Your task to perform on an android device: delete location history Image 0: 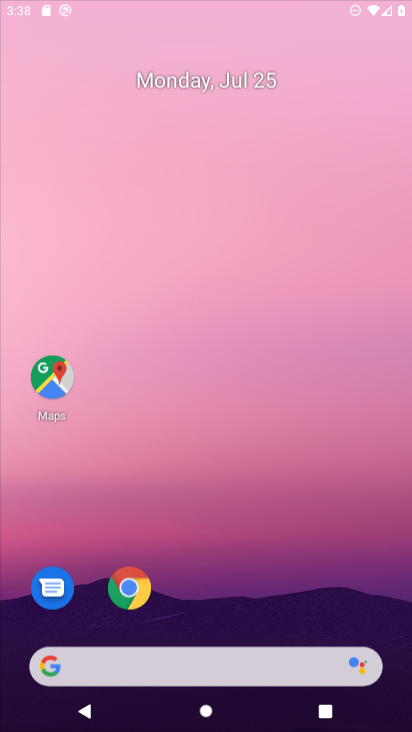
Step 0: drag from (377, 100) to (232, 120)
Your task to perform on an android device: delete location history Image 1: 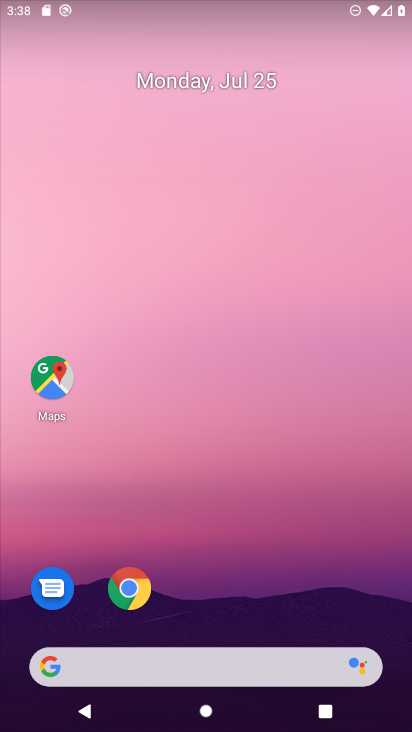
Step 1: drag from (233, 592) to (169, 42)
Your task to perform on an android device: delete location history Image 2: 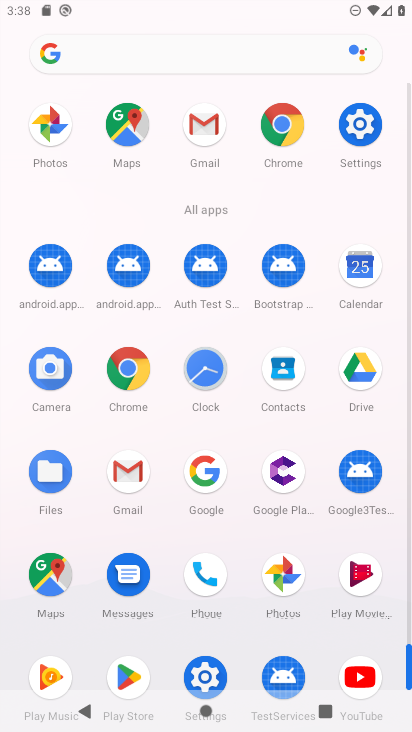
Step 2: drag from (226, 477) to (205, 221)
Your task to perform on an android device: delete location history Image 3: 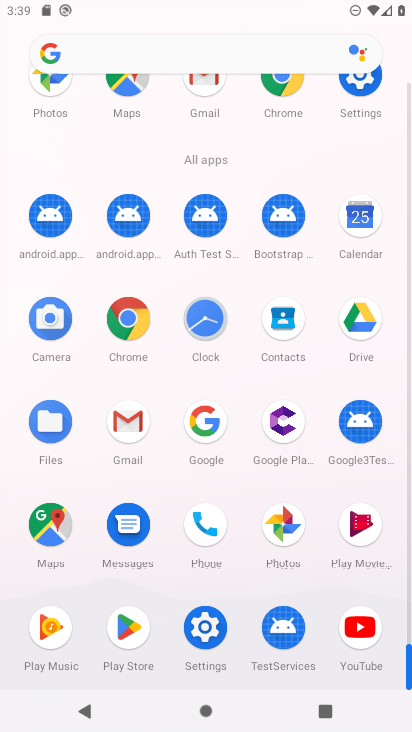
Step 3: click (204, 635)
Your task to perform on an android device: delete location history Image 4: 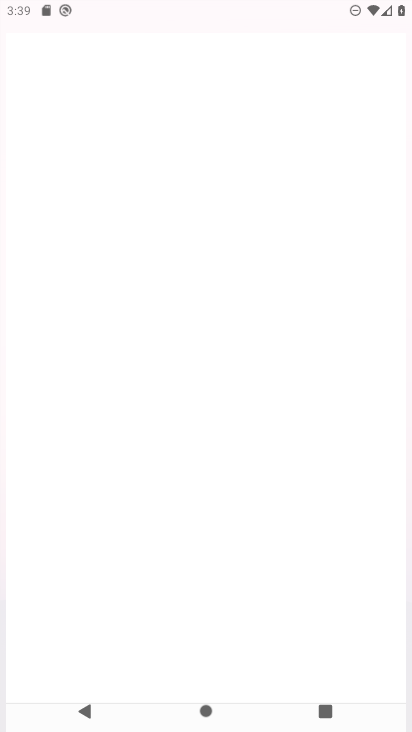
Step 4: click (204, 634)
Your task to perform on an android device: delete location history Image 5: 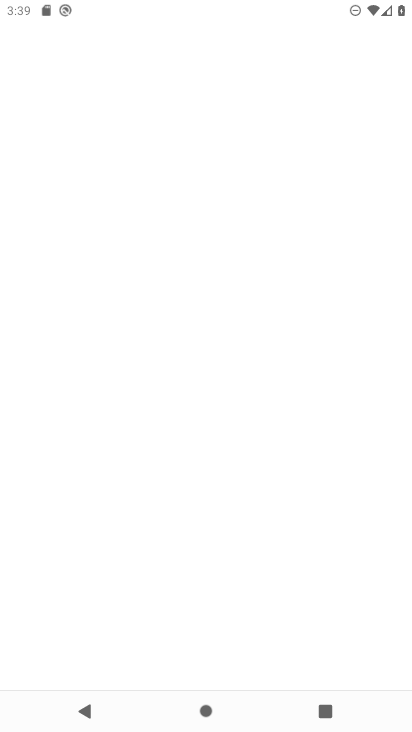
Step 5: click (204, 634)
Your task to perform on an android device: delete location history Image 6: 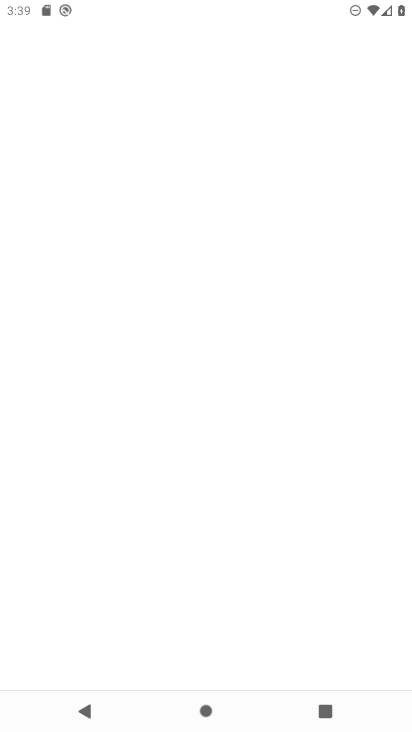
Step 6: click (204, 634)
Your task to perform on an android device: delete location history Image 7: 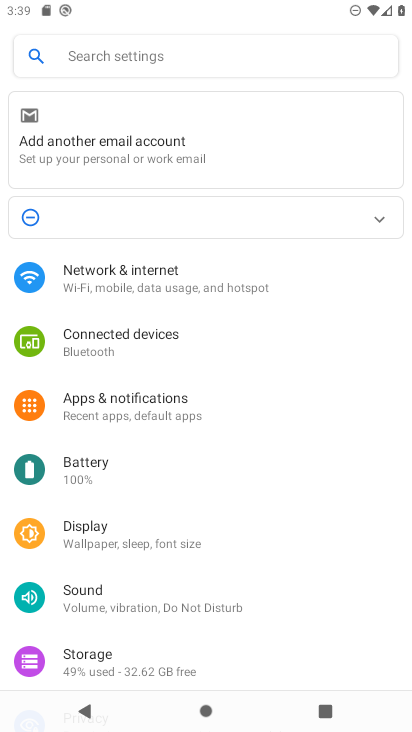
Step 7: drag from (112, 457) to (134, 268)
Your task to perform on an android device: delete location history Image 8: 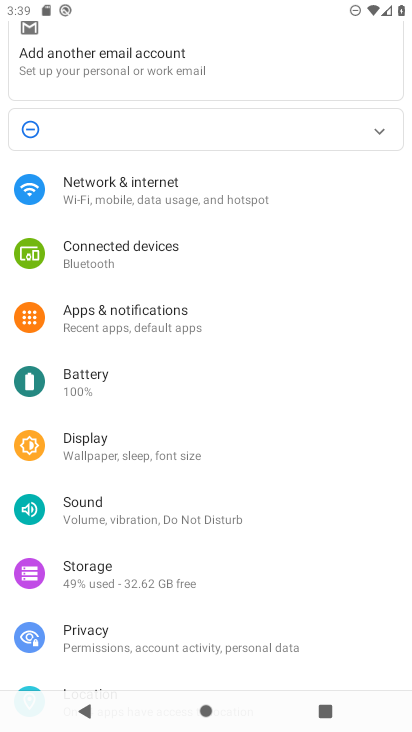
Step 8: drag from (115, 603) to (120, 245)
Your task to perform on an android device: delete location history Image 9: 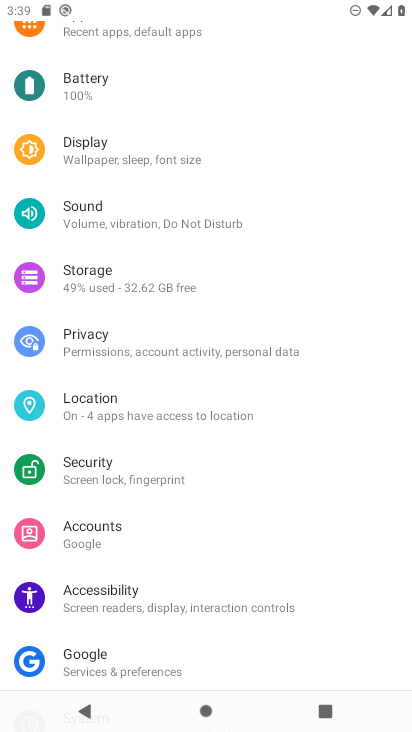
Step 9: drag from (144, 515) to (145, 361)
Your task to perform on an android device: delete location history Image 10: 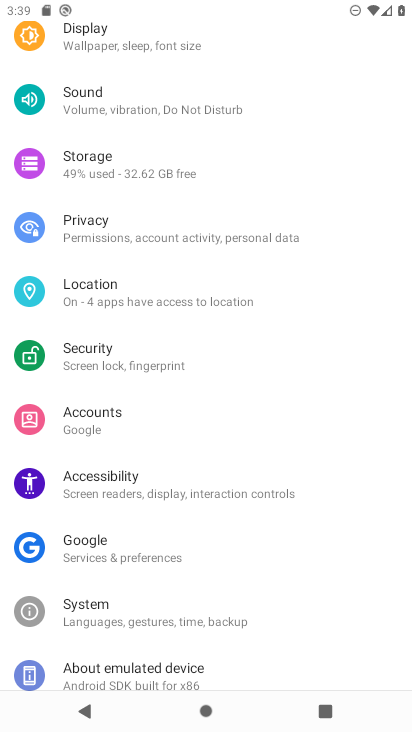
Step 10: click (87, 303)
Your task to perform on an android device: delete location history Image 11: 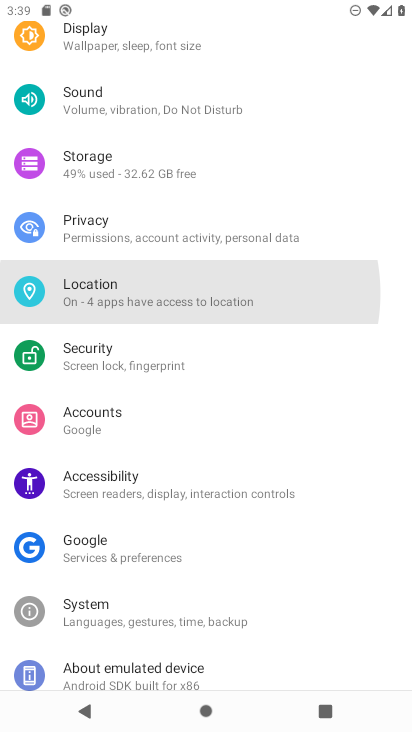
Step 11: click (88, 298)
Your task to perform on an android device: delete location history Image 12: 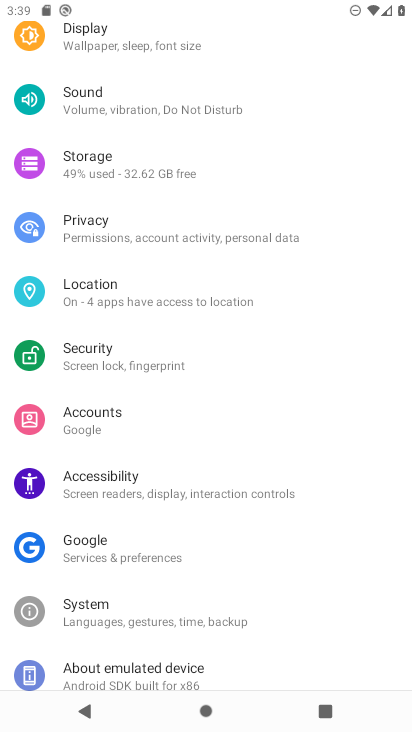
Step 12: click (93, 297)
Your task to perform on an android device: delete location history Image 13: 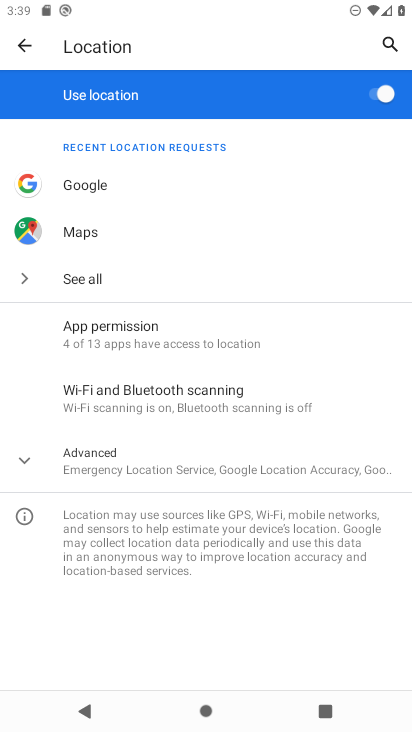
Step 13: click (96, 447)
Your task to perform on an android device: delete location history Image 14: 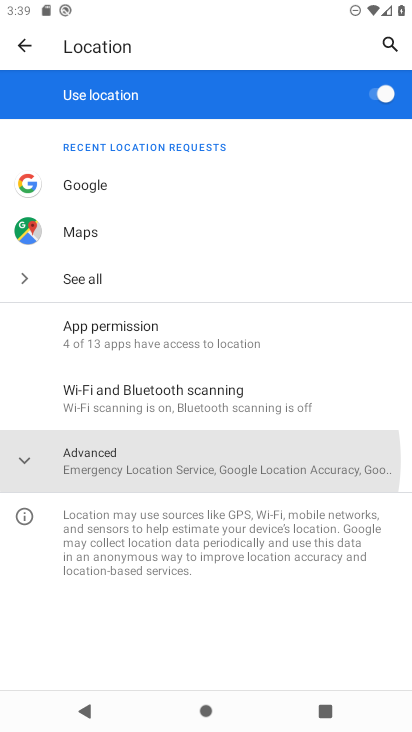
Step 14: click (95, 446)
Your task to perform on an android device: delete location history Image 15: 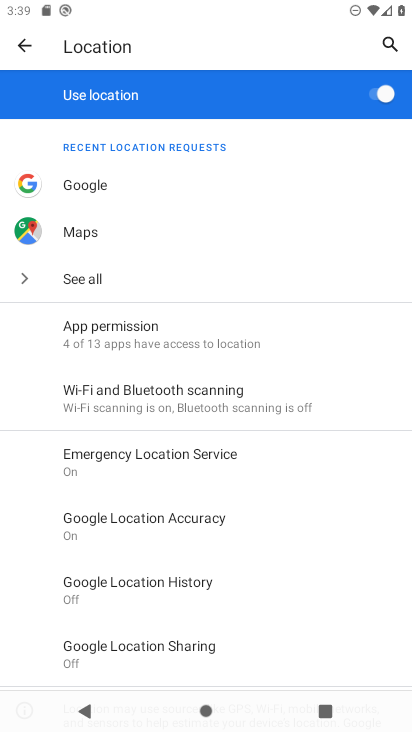
Step 15: click (146, 570)
Your task to perform on an android device: delete location history Image 16: 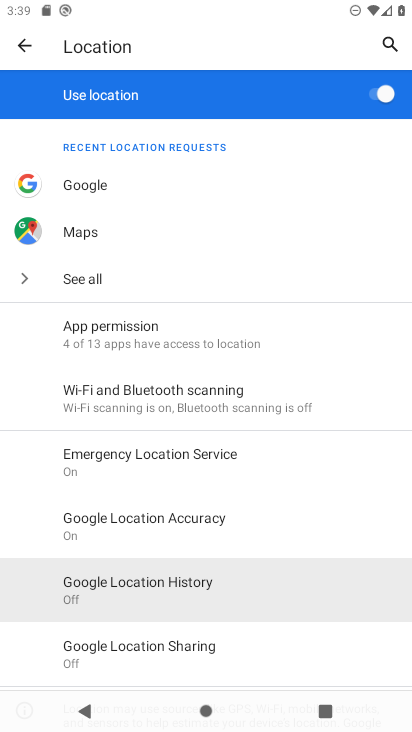
Step 16: click (147, 574)
Your task to perform on an android device: delete location history Image 17: 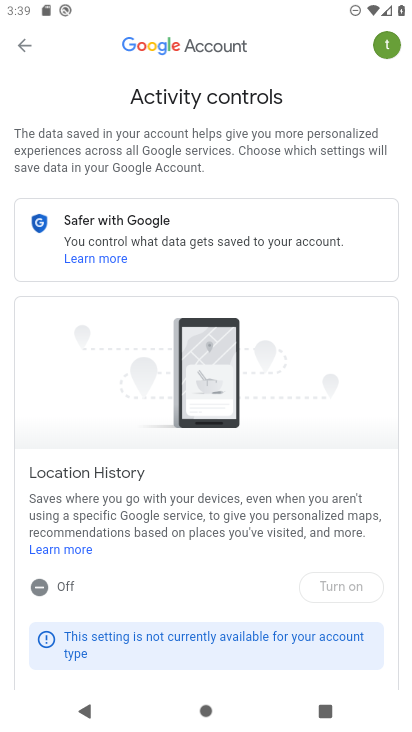
Step 17: click (49, 584)
Your task to perform on an android device: delete location history Image 18: 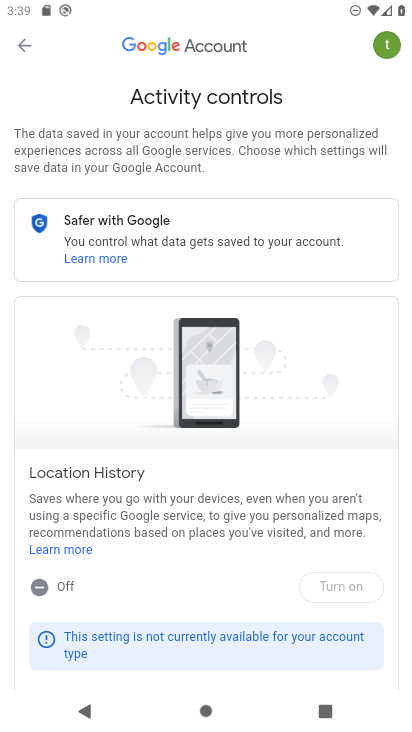
Step 18: click (57, 590)
Your task to perform on an android device: delete location history Image 19: 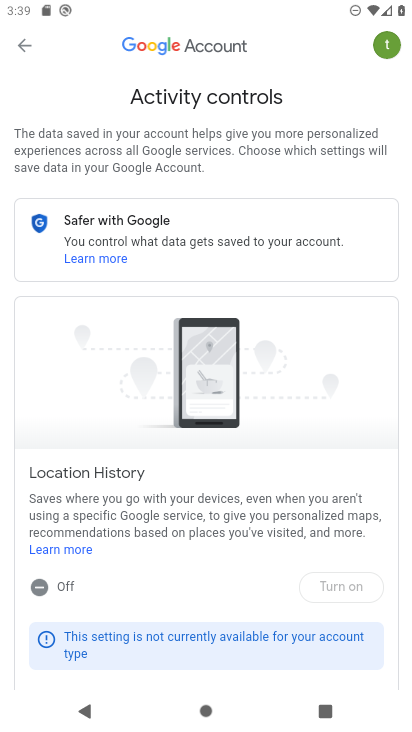
Step 19: click (58, 590)
Your task to perform on an android device: delete location history Image 20: 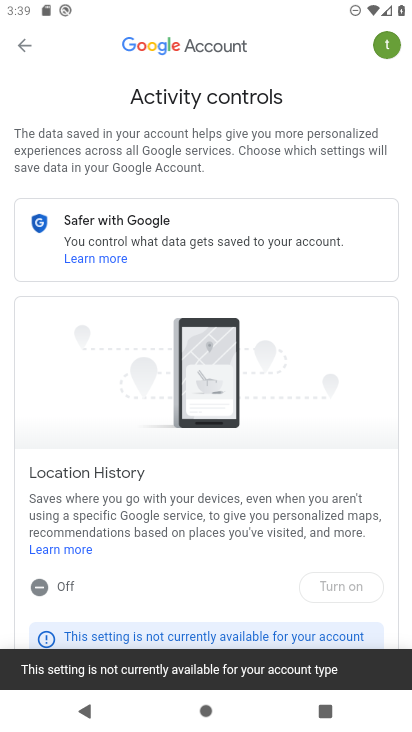
Step 20: task complete